Your task to perform on an android device: toggle translation in the chrome app Image 0: 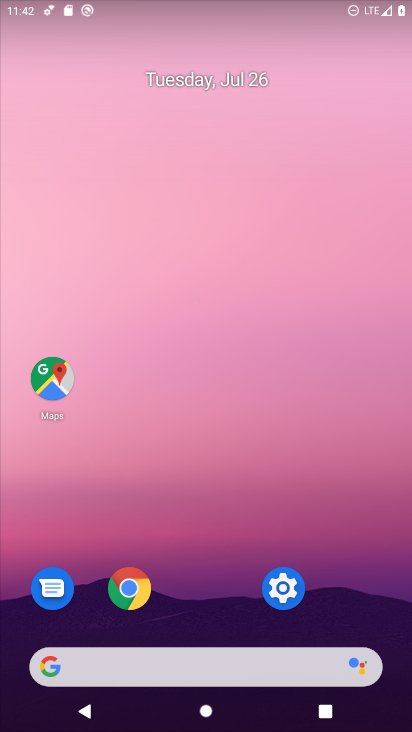
Step 0: drag from (245, 681) to (160, 223)
Your task to perform on an android device: toggle translation in the chrome app Image 1: 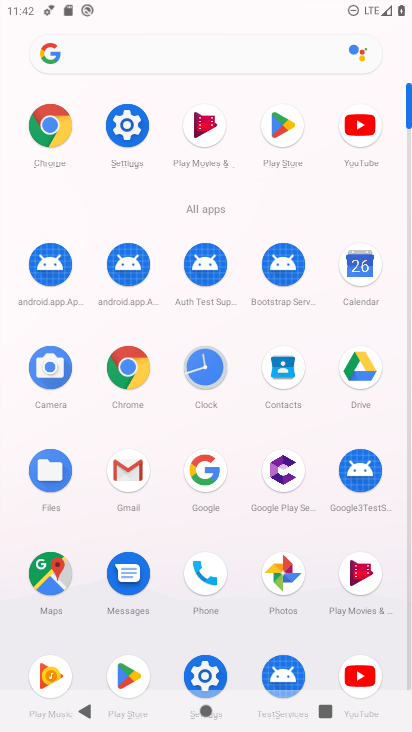
Step 1: click (43, 123)
Your task to perform on an android device: toggle translation in the chrome app Image 2: 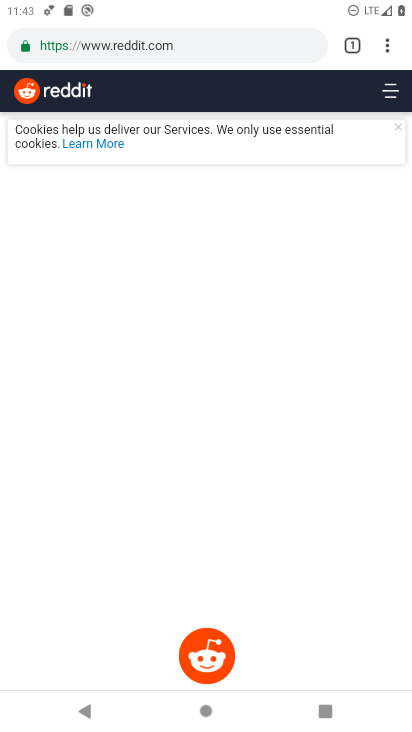
Step 2: click (386, 48)
Your task to perform on an android device: toggle translation in the chrome app Image 3: 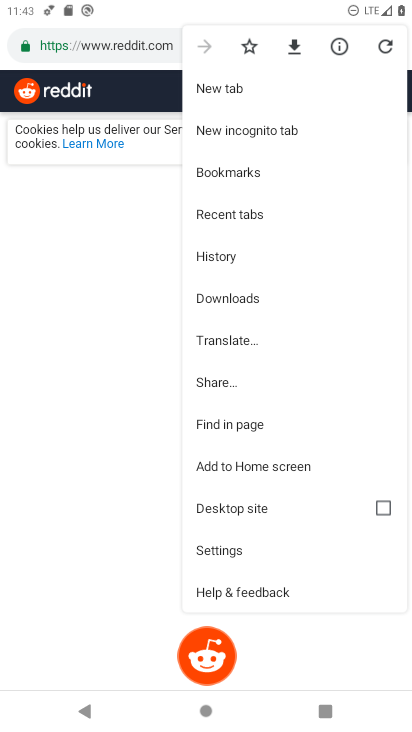
Step 3: click (228, 548)
Your task to perform on an android device: toggle translation in the chrome app Image 4: 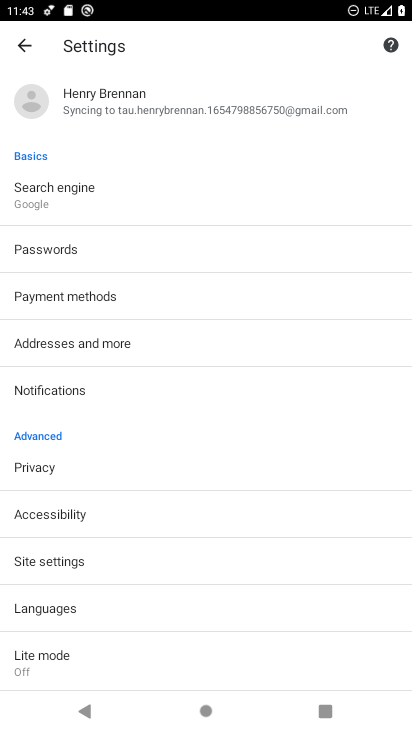
Step 4: click (74, 607)
Your task to perform on an android device: toggle translation in the chrome app Image 5: 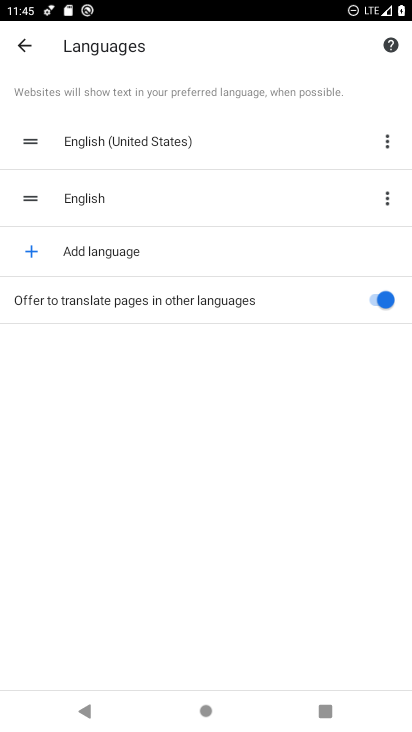
Step 5: task complete